Your task to perform on an android device: turn off location Image 0: 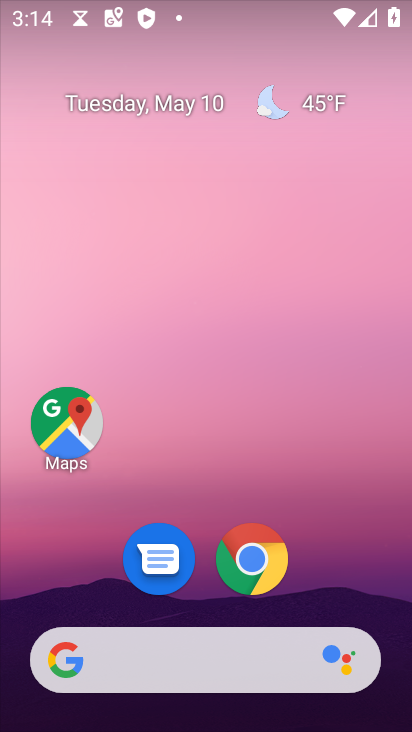
Step 0: drag from (356, 534) to (199, 10)
Your task to perform on an android device: turn off location Image 1: 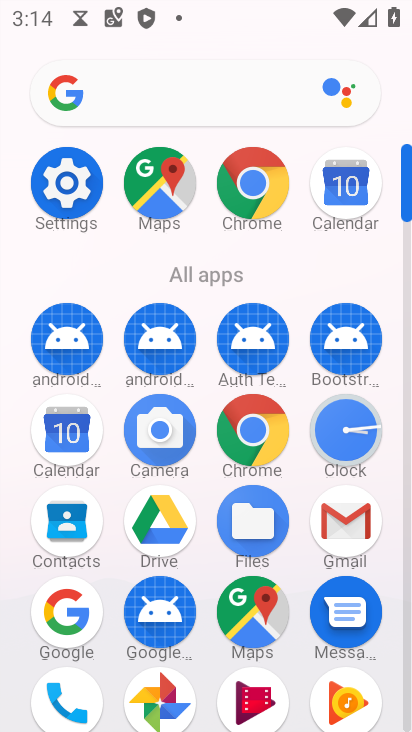
Step 1: click (60, 182)
Your task to perform on an android device: turn off location Image 2: 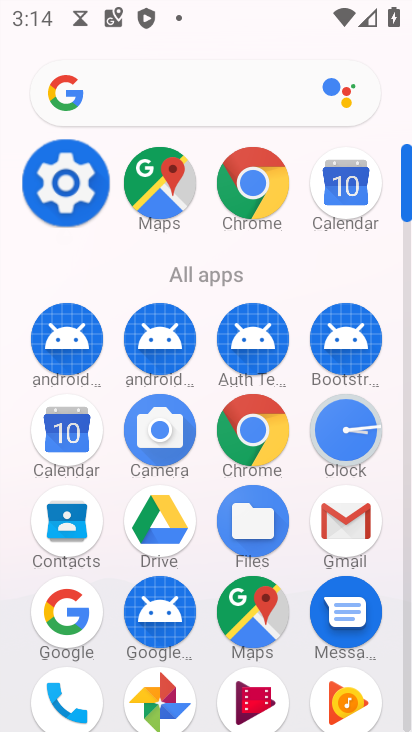
Step 2: click (63, 199)
Your task to perform on an android device: turn off location Image 3: 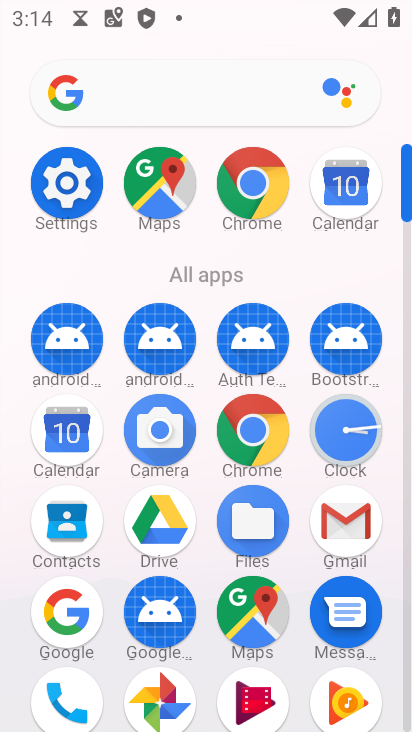
Step 3: click (58, 207)
Your task to perform on an android device: turn off location Image 4: 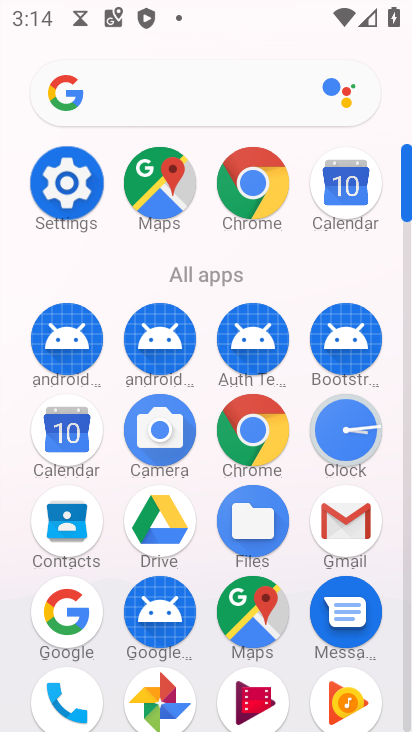
Step 4: click (59, 214)
Your task to perform on an android device: turn off location Image 5: 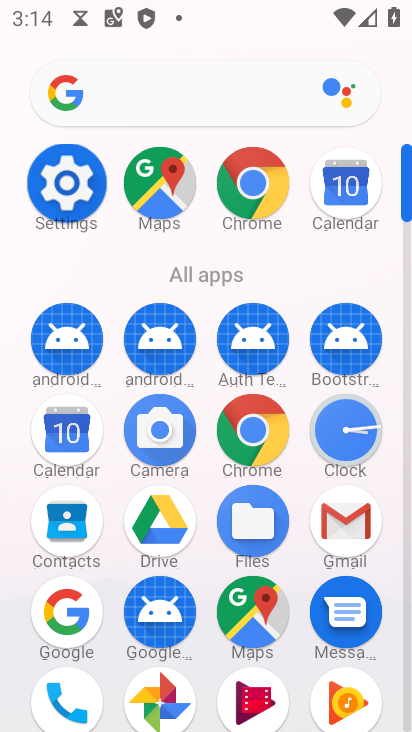
Step 5: click (54, 203)
Your task to perform on an android device: turn off location Image 6: 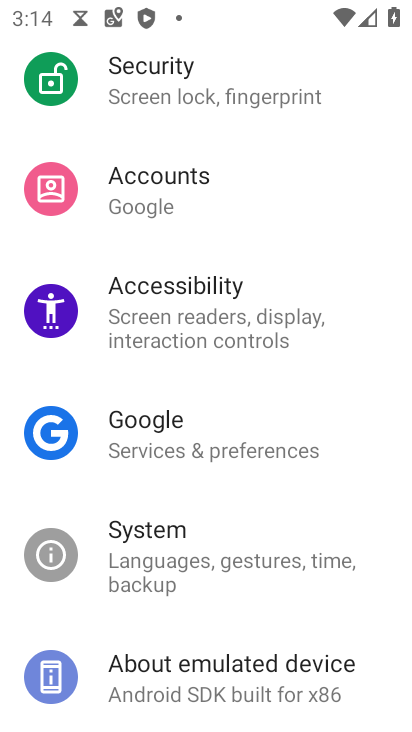
Step 6: click (73, 199)
Your task to perform on an android device: turn off location Image 7: 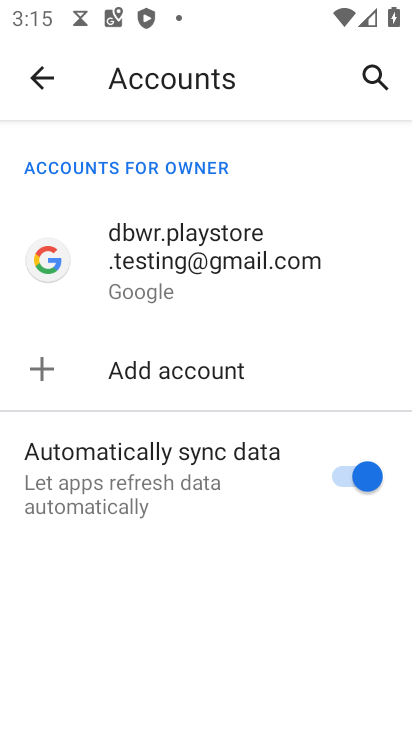
Step 7: click (36, 61)
Your task to perform on an android device: turn off location Image 8: 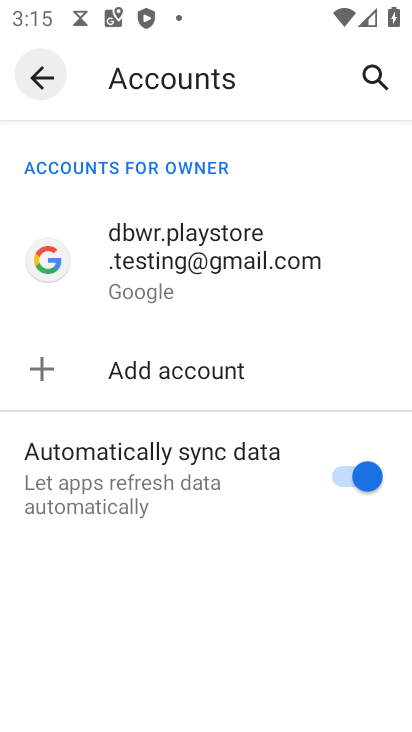
Step 8: click (28, 71)
Your task to perform on an android device: turn off location Image 9: 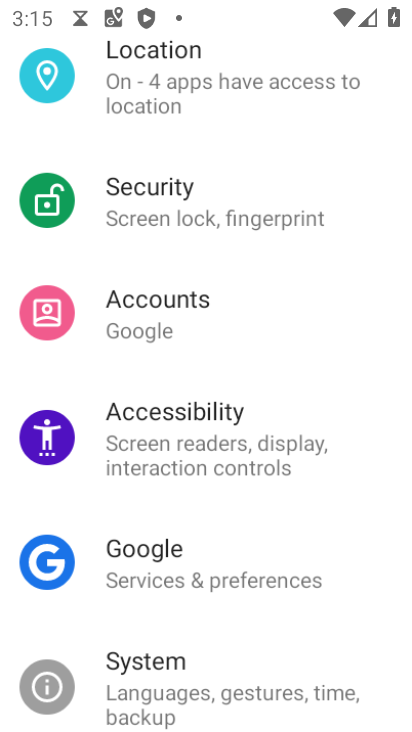
Step 9: click (28, 75)
Your task to perform on an android device: turn off location Image 10: 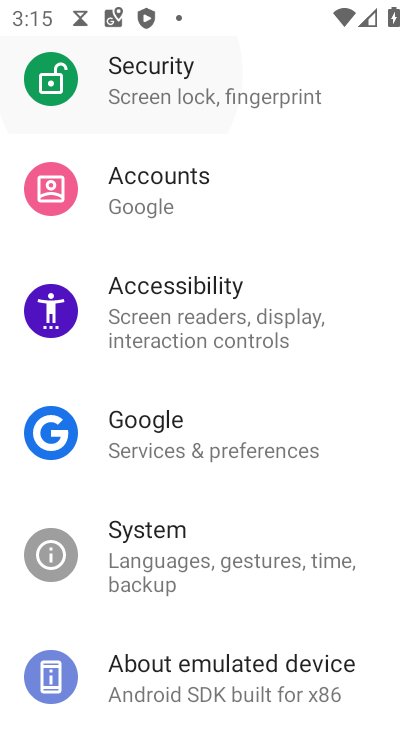
Step 10: click (32, 76)
Your task to perform on an android device: turn off location Image 11: 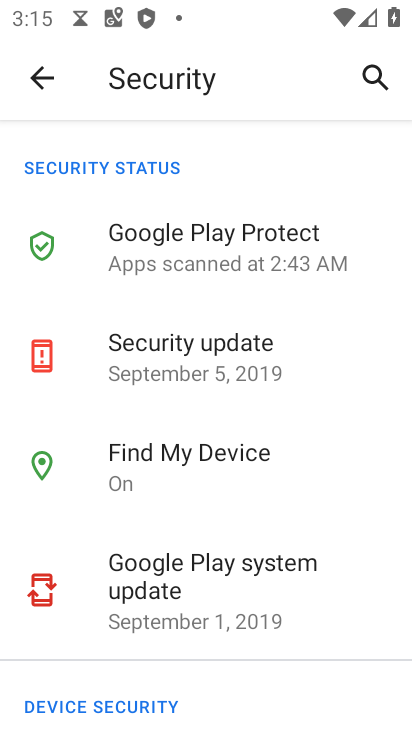
Step 11: click (34, 72)
Your task to perform on an android device: turn off location Image 12: 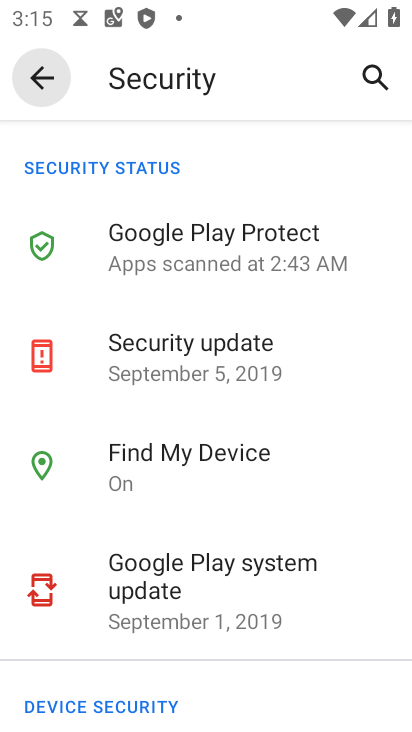
Step 12: click (35, 73)
Your task to perform on an android device: turn off location Image 13: 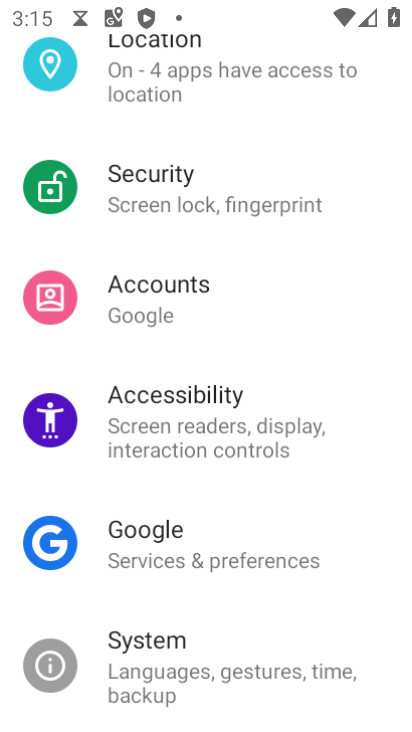
Step 13: click (35, 73)
Your task to perform on an android device: turn off location Image 14: 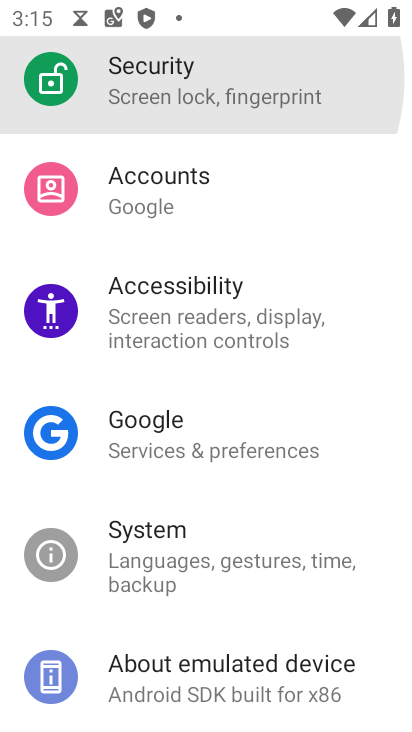
Step 14: click (35, 73)
Your task to perform on an android device: turn off location Image 15: 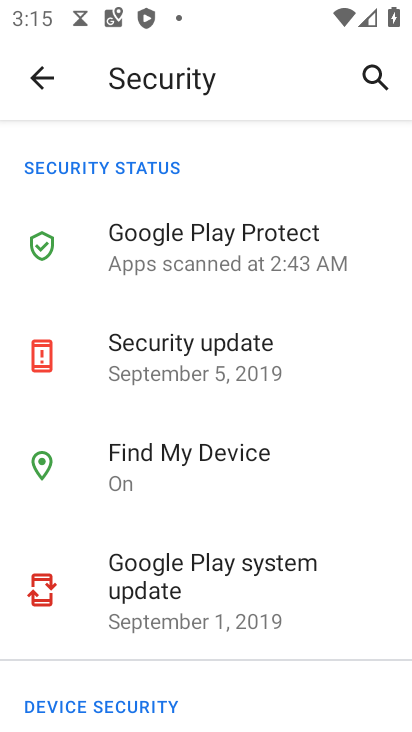
Step 15: click (35, 73)
Your task to perform on an android device: turn off location Image 16: 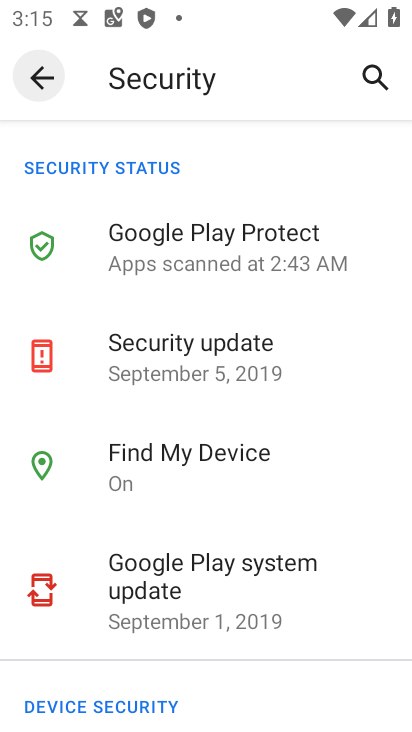
Step 16: click (35, 73)
Your task to perform on an android device: turn off location Image 17: 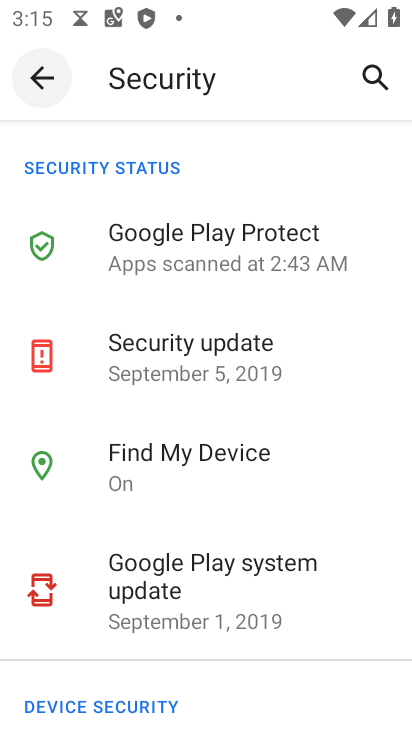
Step 17: click (35, 73)
Your task to perform on an android device: turn off location Image 18: 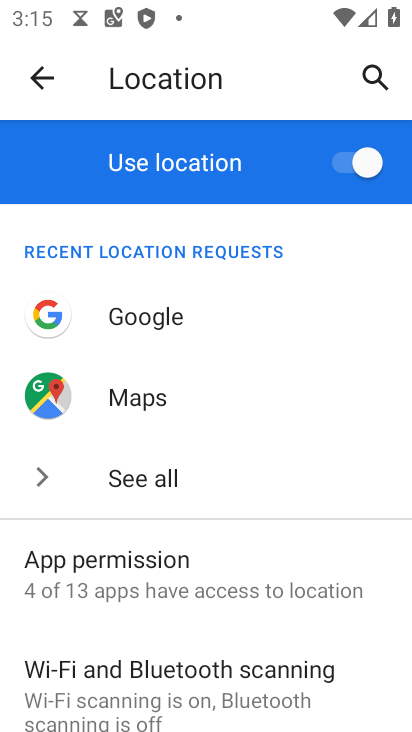
Step 18: drag from (220, 473) to (176, 47)
Your task to perform on an android device: turn off location Image 19: 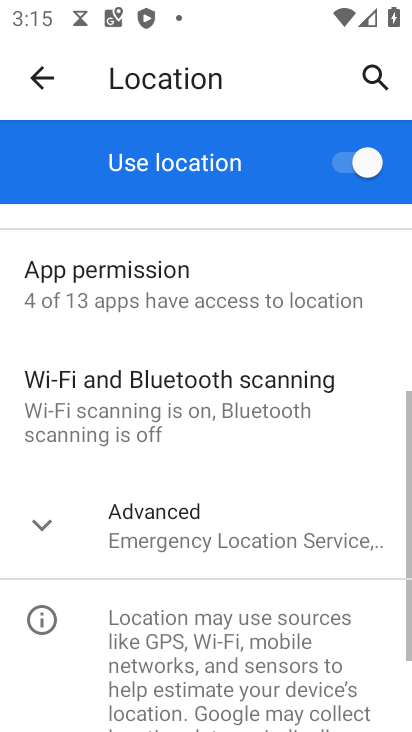
Step 19: drag from (232, 414) to (93, 61)
Your task to perform on an android device: turn off location Image 20: 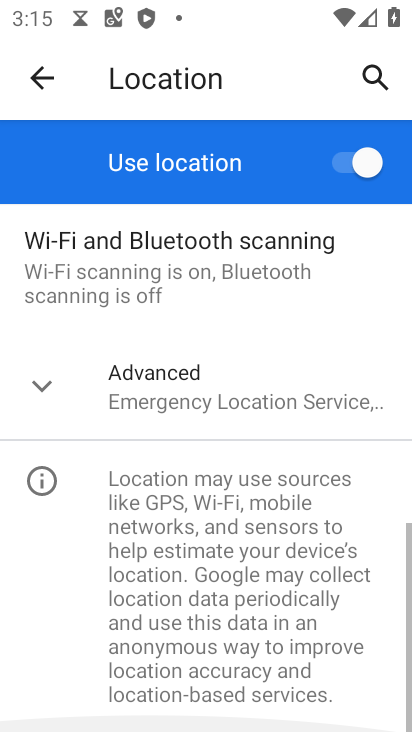
Step 20: drag from (268, 418) to (279, 72)
Your task to perform on an android device: turn off location Image 21: 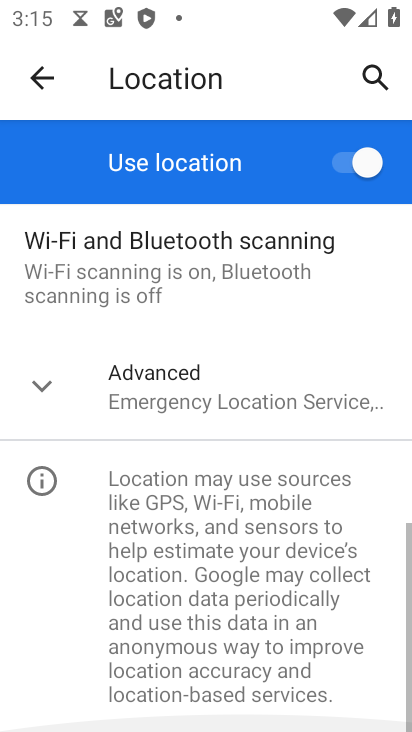
Step 21: drag from (215, 378) to (140, 27)
Your task to perform on an android device: turn off location Image 22: 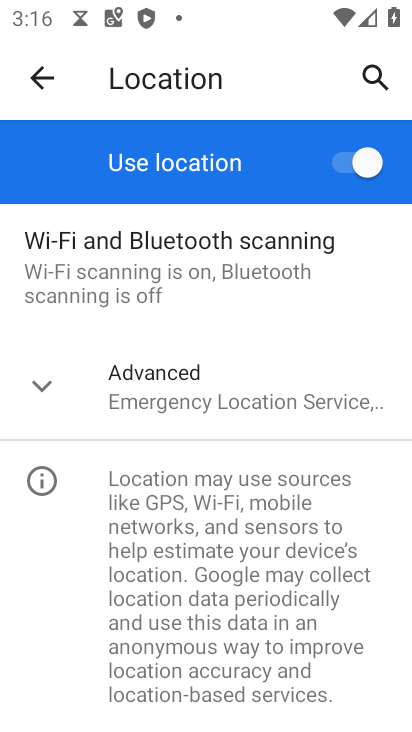
Step 22: click (168, 381)
Your task to perform on an android device: turn off location Image 23: 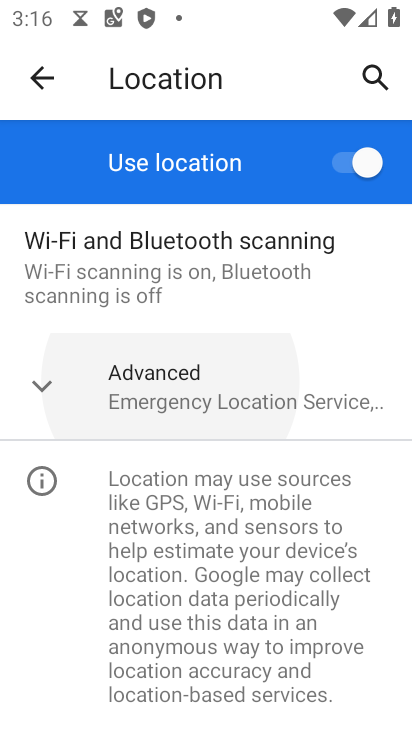
Step 23: click (167, 380)
Your task to perform on an android device: turn off location Image 24: 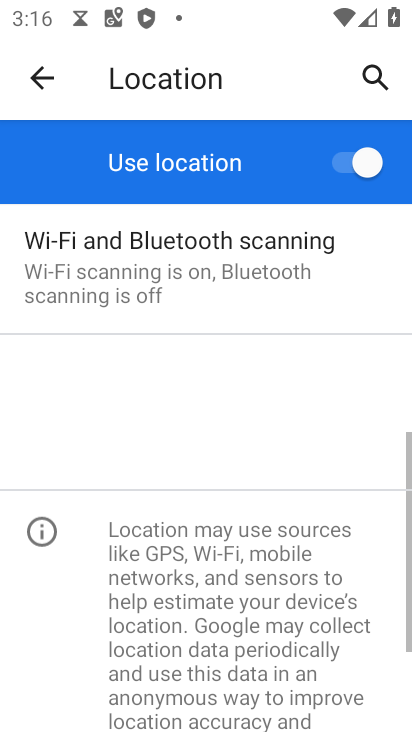
Step 24: click (169, 391)
Your task to perform on an android device: turn off location Image 25: 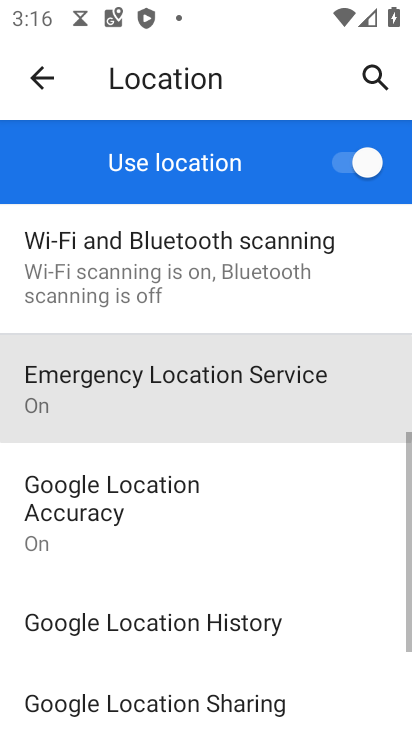
Step 25: click (169, 397)
Your task to perform on an android device: turn off location Image 26: 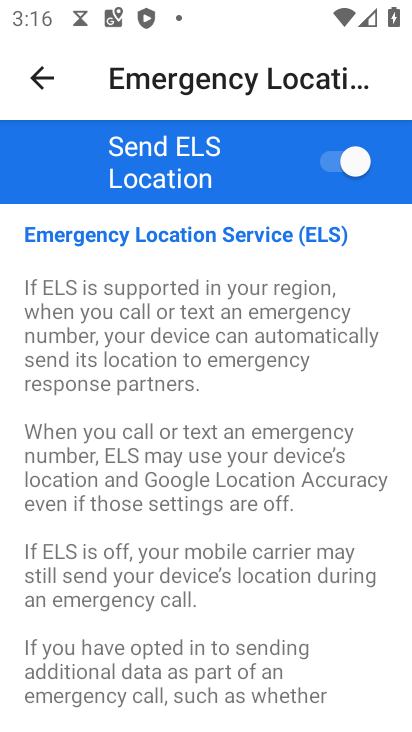
Step 26: click (42, 83)
Your task to perform on an android device: turn off location Image 27: 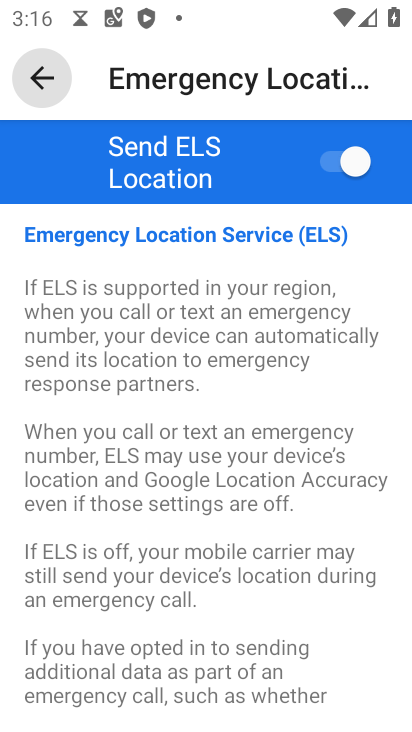
Step 27: click (40, 74)
Your task to perform on an android device: turn off location Image 28: 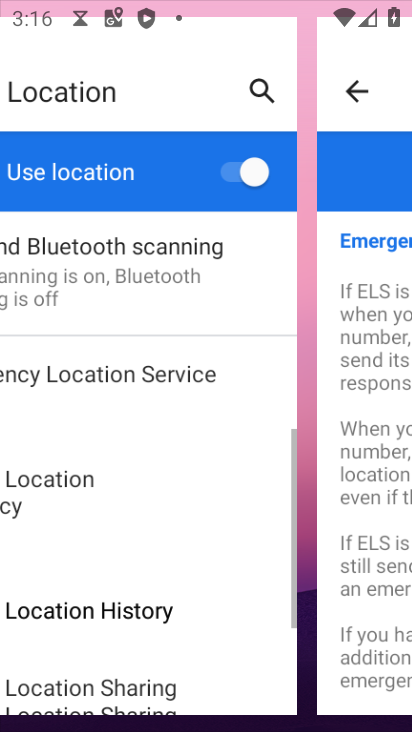
Step 28: click (40, 74)
Your task to perform on an android device: turn off location Image 29: 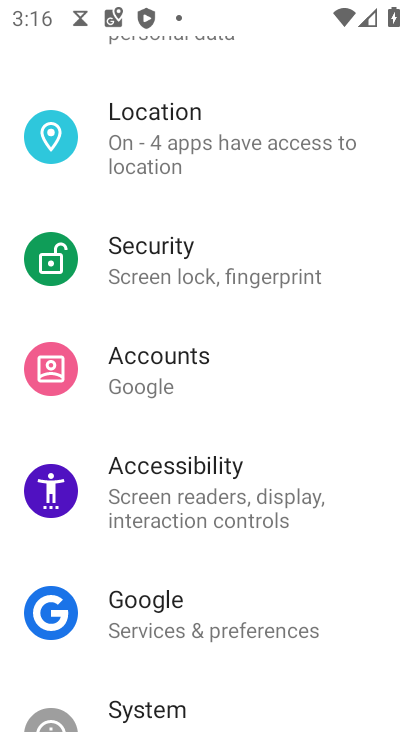
Step 29: click (147, 150)
Your task to perform on an android device: turn off location Image 30: 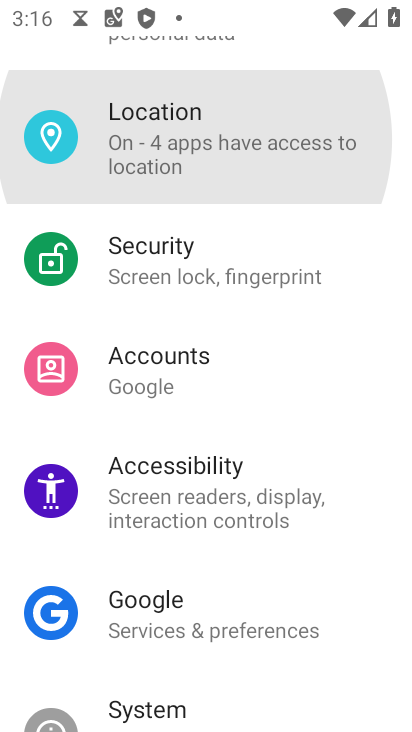
Step 30: click (147, 150)
Your task to perform on an android device: turn off location Image 31: 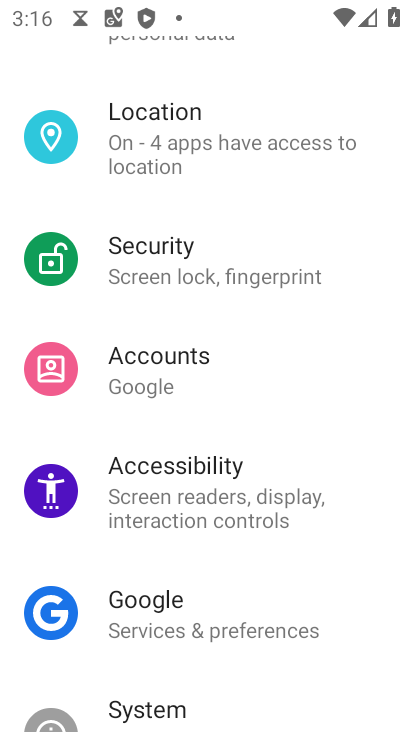
Step 31: click (149, 152)
Your task to perform on an android device: turn off location Image 32: 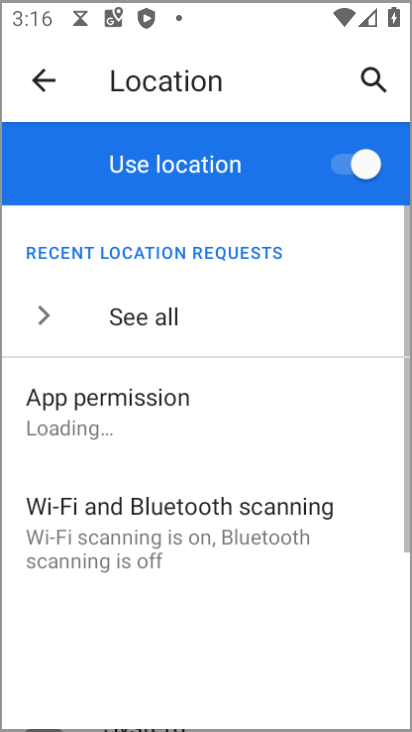
Step 32: click (149, 152)
Your task to perform on an android device: turn off location Image 33: 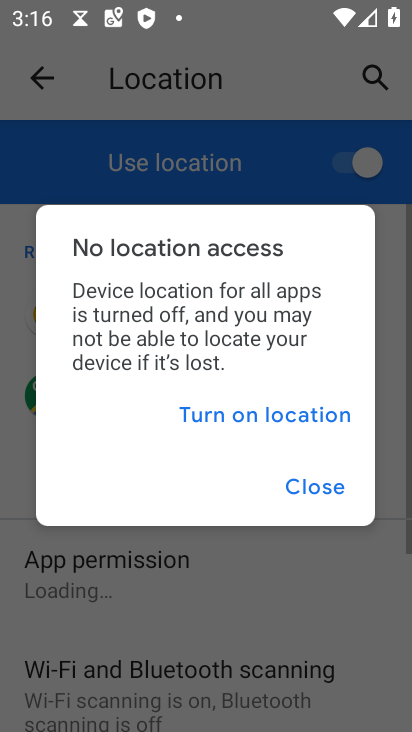
Step 33: drag from (177, 498) to (170, 104)
Your task to perform on an android device: turn off location Image 34: 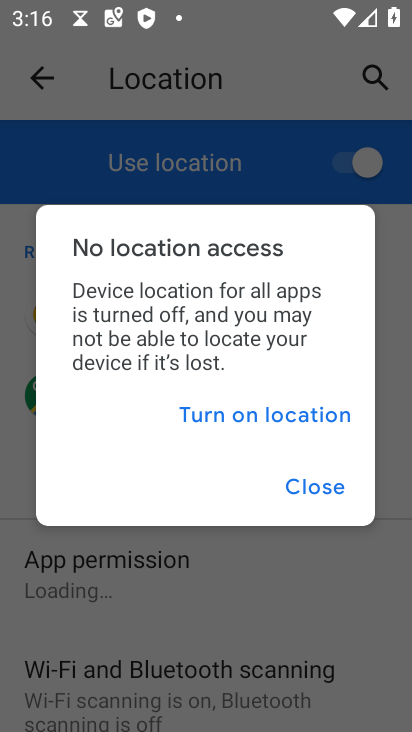
Step 34: click (308, 483)
Your task to perform on an android device: turn off location Image 35: 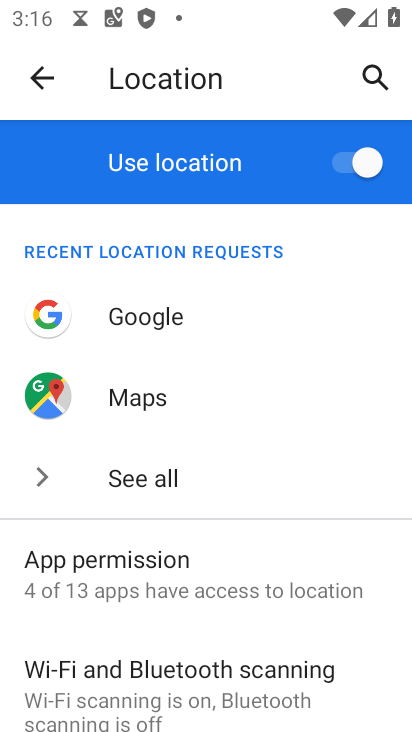
Step 35: click (137, 576)
Your task to perform on an android device: turn off location Image 36: 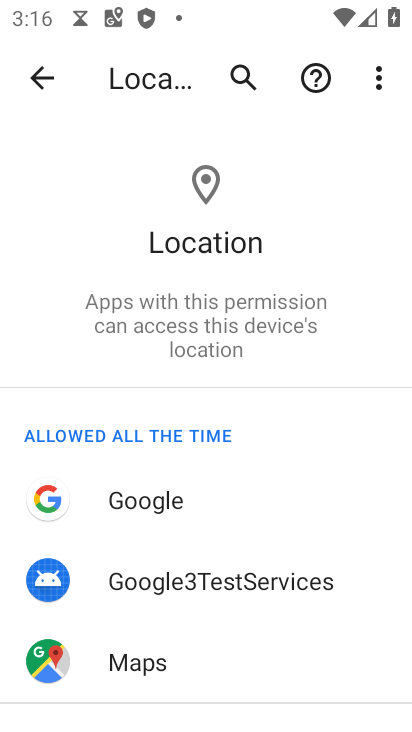
Step 36: drag from (145, 319) to (89, 52)
Your task to perform on an android device: turn off location Image 37: 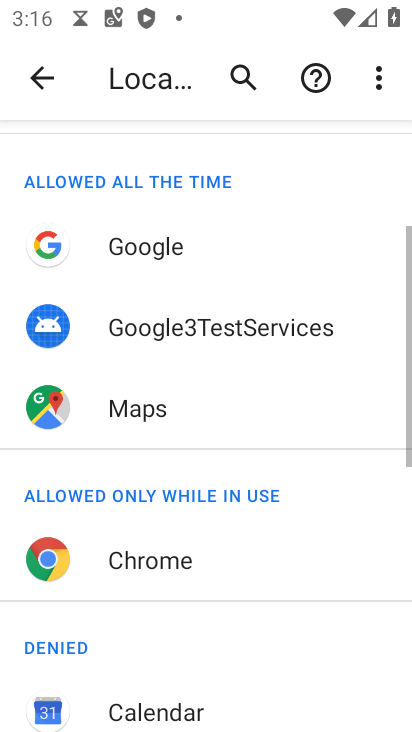
Step 37: drag from (167, 315) to (144, 0)
Your task to perform on an android device: turn off location Image 38: 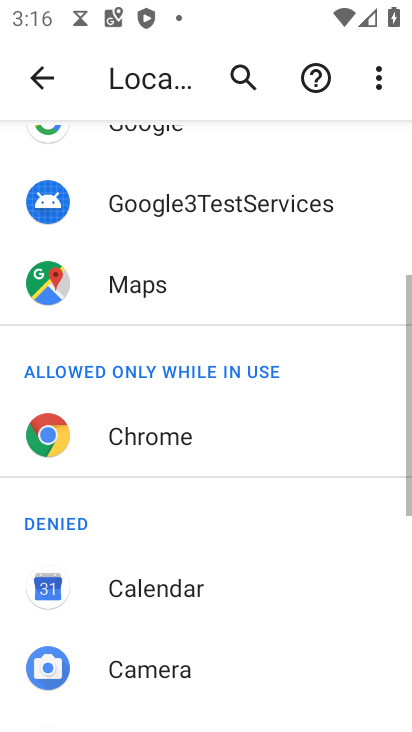
Step 38: drag from (205, 394) to (115, 32)
Your task to perform on an android device: turn off location Image 39: 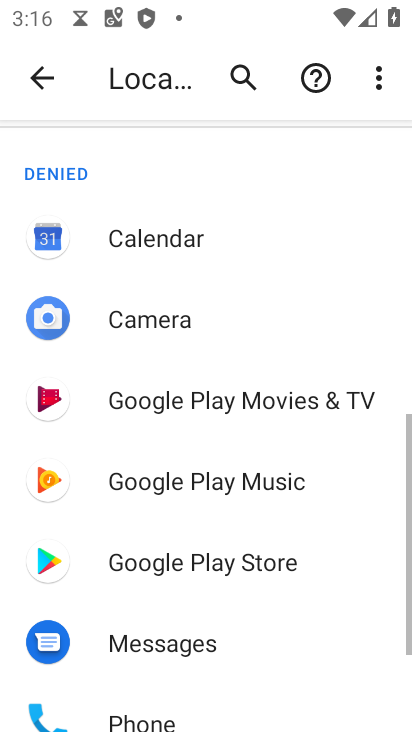
Step 39: drag from (211, 474) to (132, 9)
Your task to perform on an android device: turn off location Image 40: 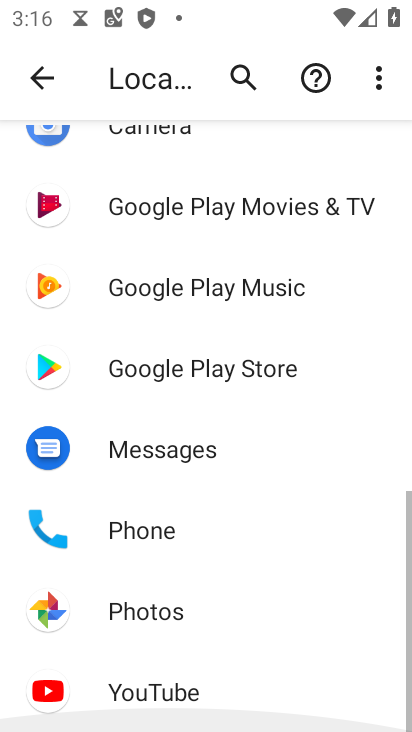
Step 40: drag from (172, 391) to (118, 88)
Your task to perform on an android device: turn off location Image 41: 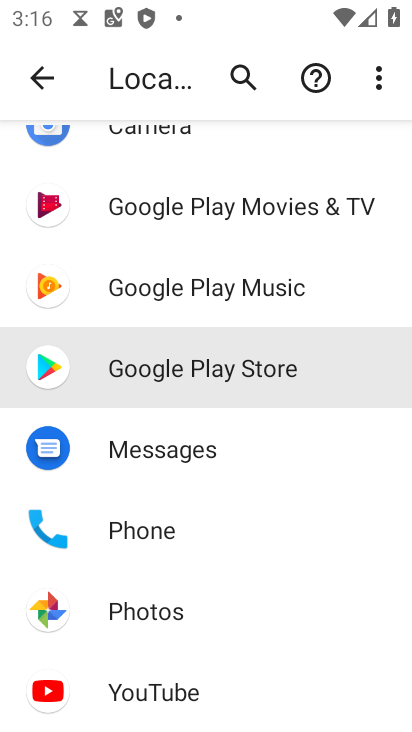
Step 41: drag from (214, 461) to (167, 22)
Your task to perform on an android device: turn off location Image 42: 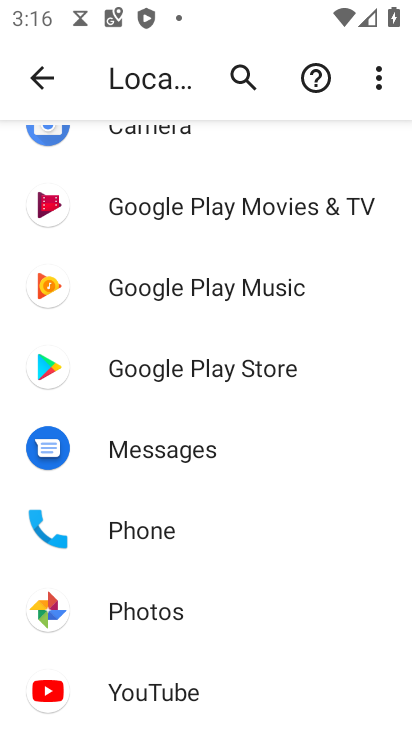
Step 42: drag from (239, 458) to (226, 113)
Your task to perform on an android device: turn off location Image 43: 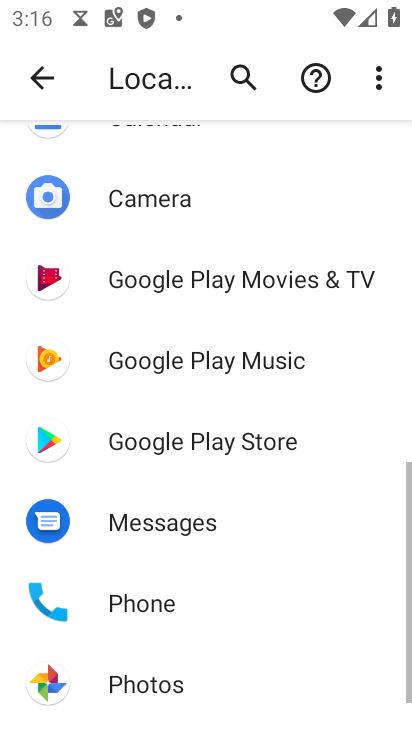
Step 43: drag from (217, 520) to (167, 6)
Your task to perform on an android device: turn off location Image 44: 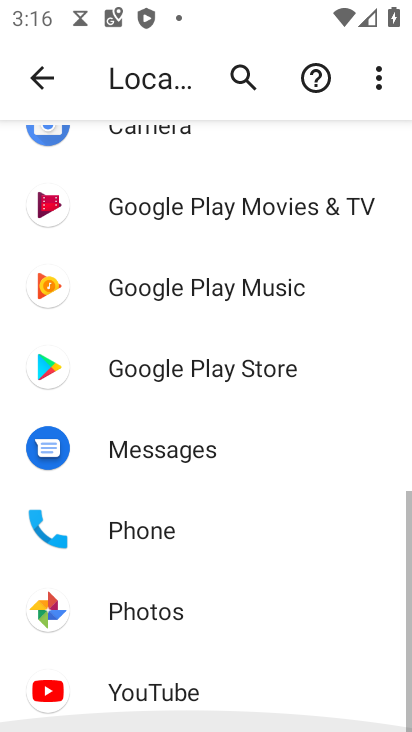
Step 44: drag from (152, 467) to (64, 13)
Your task to perform on an android device: turn off location Image 45: 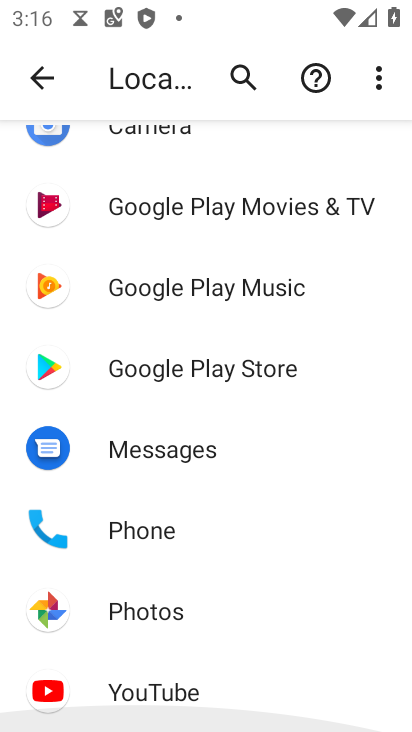
Step 45: drag from (138, 192) to (118, 39)
Your task to perform on an android device: turn off location Image 46: 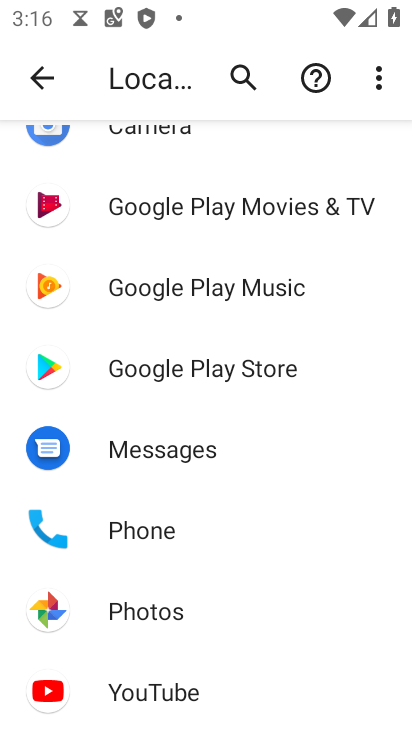
Step 46: drag from (168, 473) to (122, 113)
Your task to perform on an android device: turn off location Image 47: 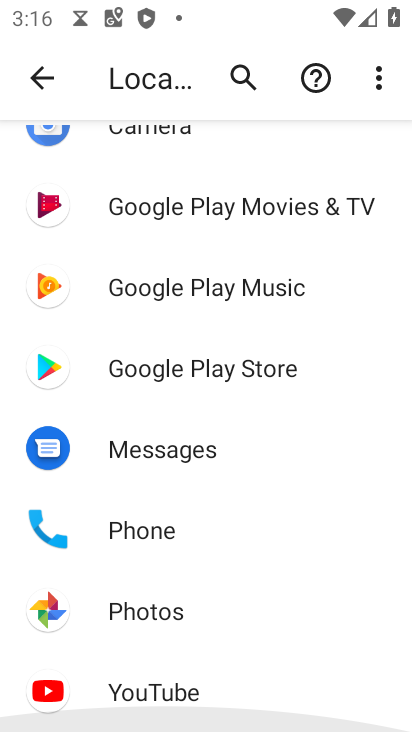
Step 47: drag from (143, 540) to (67, 12)
Your task to perform on an android device: turn off location Image 48: 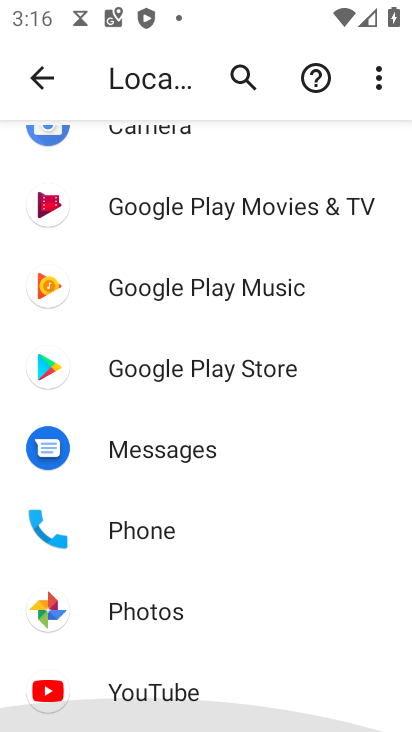
Step 48: drag from (148, 498) to (91, 51)
Your task to perform on an android device: turn off location Image 49: 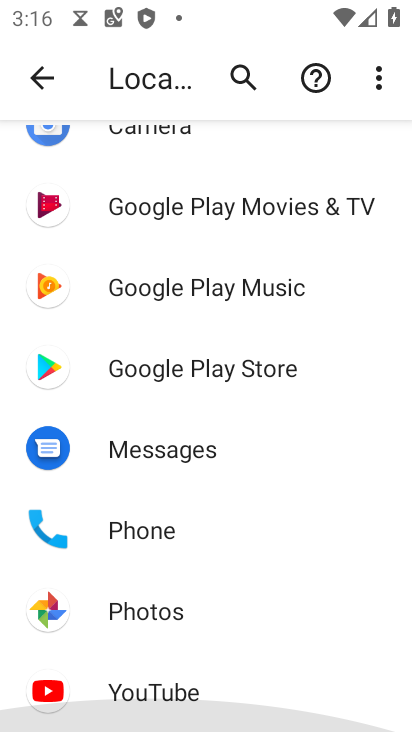
Step 49: drag from (130, 380) to (61, 11)
Your task to perform on an android device: turn off location Image 50: 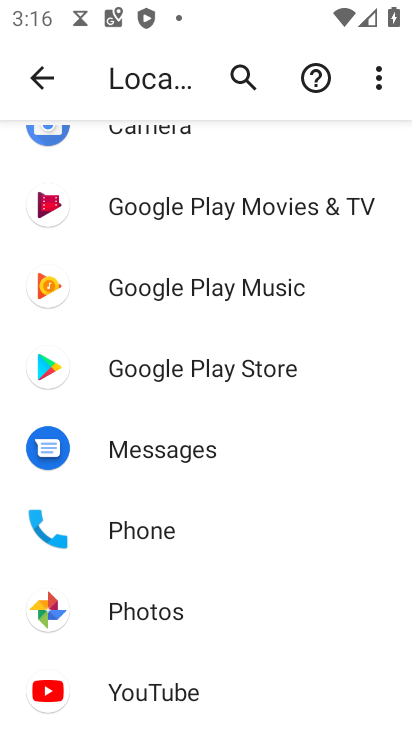
Step 50: drag from (177, 348) to (245, 574)
Your task to perform on an android device: turn off location Image 51: 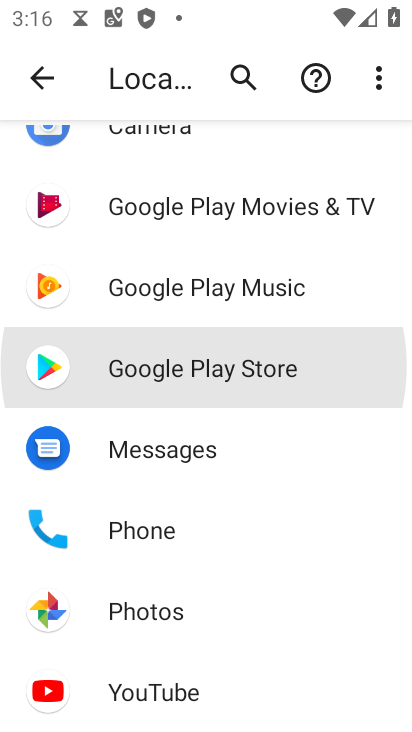
Step 51: drag from (108, 193) to (192, 653)
Your task to perform on an android device: turn off location Image 52: 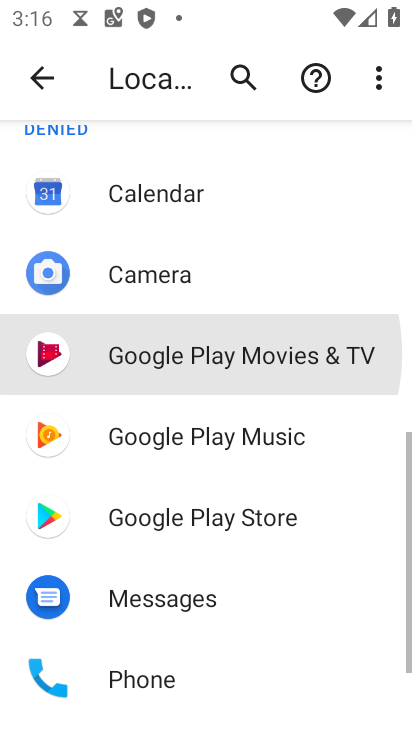
Step 52: drag from (197, 283) to (211, 648)
Your task to perform on an android device: turn off location Image 53: 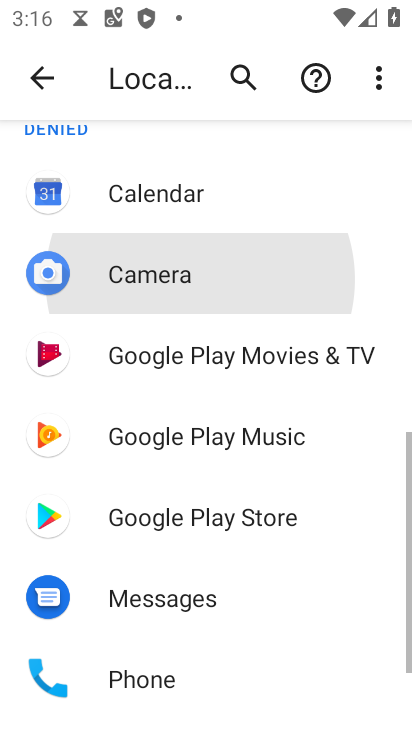
Step 53: drag from (138, 440) to (181, 716)
Your task to perform on an android device: turn off location Image 54: 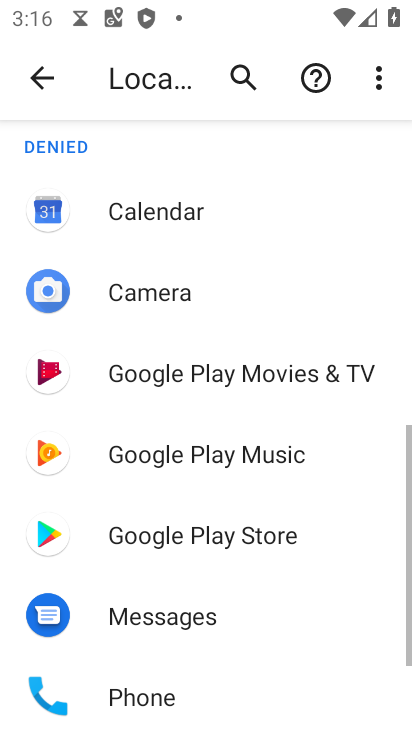
Step 54: drag from (176, 307) to (232, 676)
Your task to perform on an android device: turn off location Image 55: 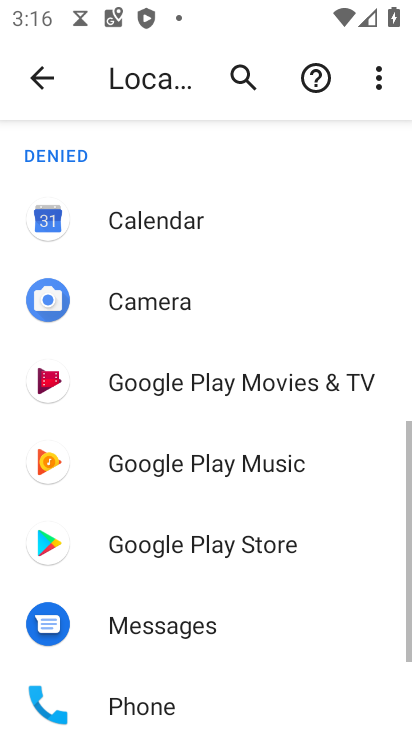
Step 55: drag from (160, 177) to (213, 543)
Your task to perform on an android device: turn off location Image 56: 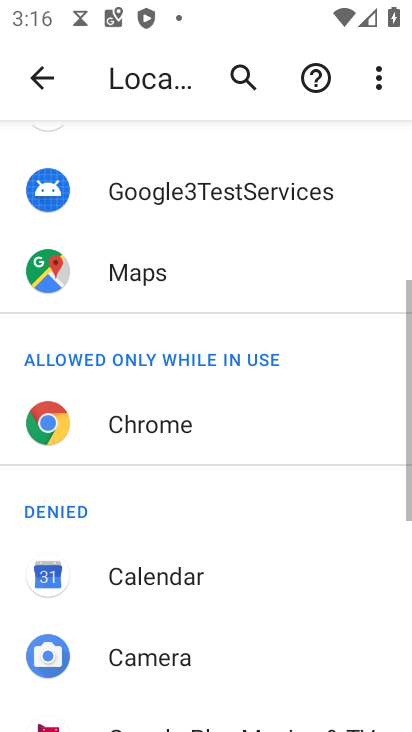
Step 56: drag from (175, 375) to (205, 599)
Your task to perform on an android device: turn off location Image 57: 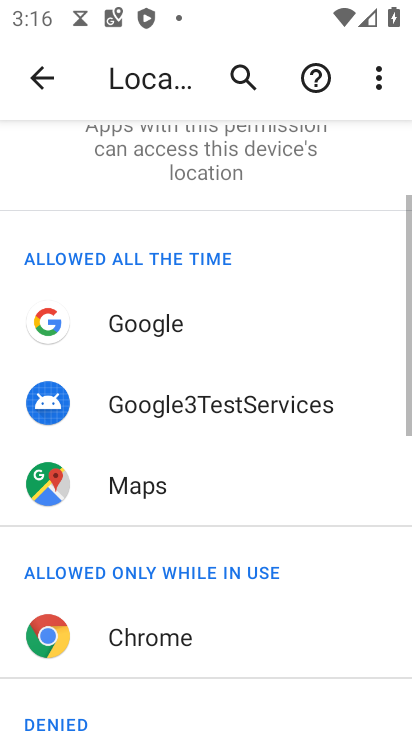
Step 57: drag from (106, 138) to (120, 378)
Your task to perform on an android device: turn off location Image 58: 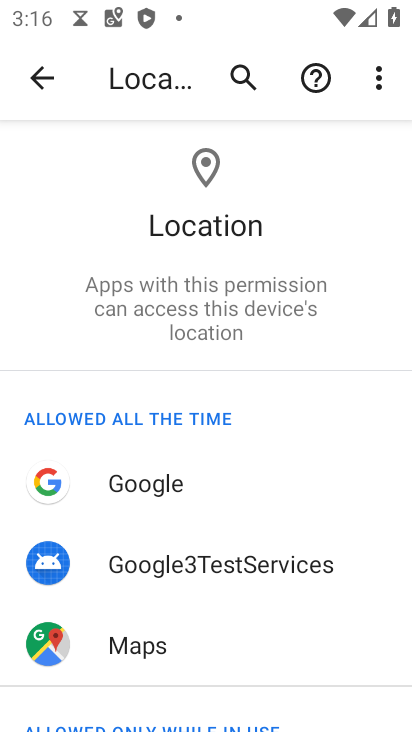
Step 58: click (32, 74)
Your task to perform on an android device: turn off location Image 59: 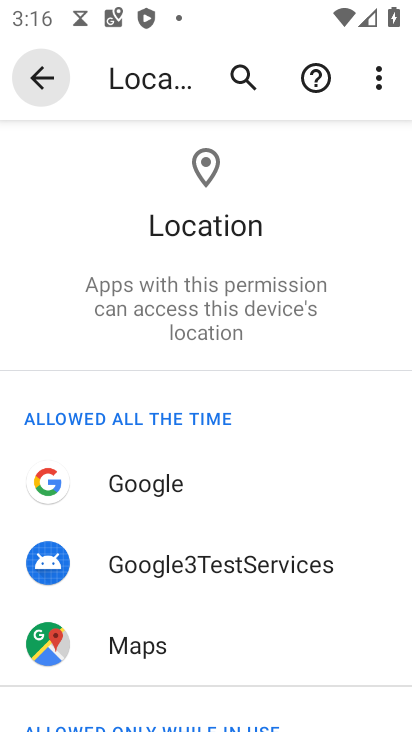
Step 59: click (32, 73)
Your task to perform on an android device: turn off location Image 60: 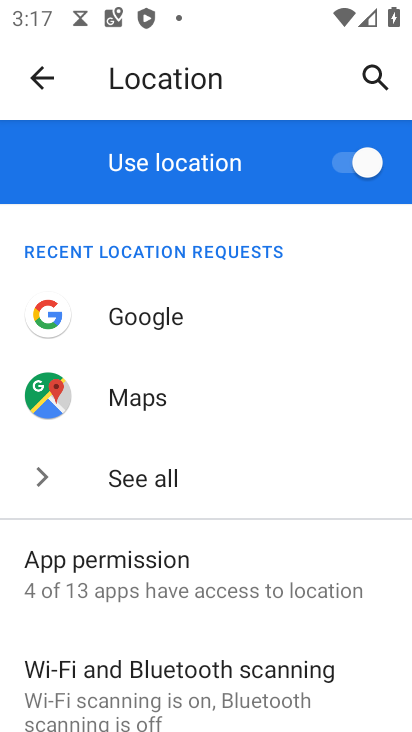
Step 60: click (364, 167)
Your task to perform on an android device: turn off location Image 61: 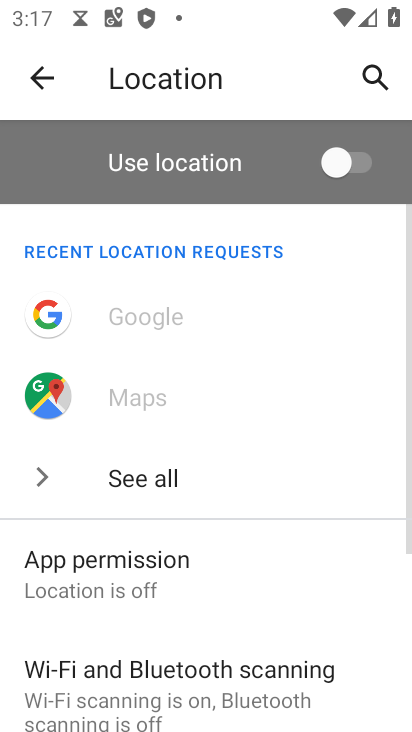
Step 61: task complete